Your task to perform on an android device: Toggle the flashlight Image 0: 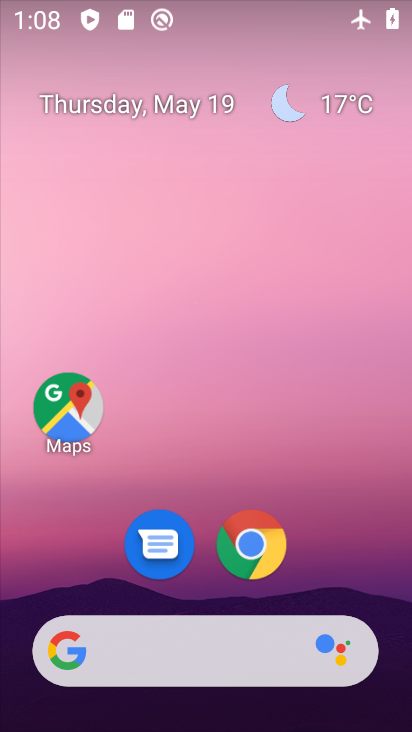
Step 0: drag from (200, 708) to (200, 175)
Your task to perform on an android device: Toggle the flashlight Image 1: 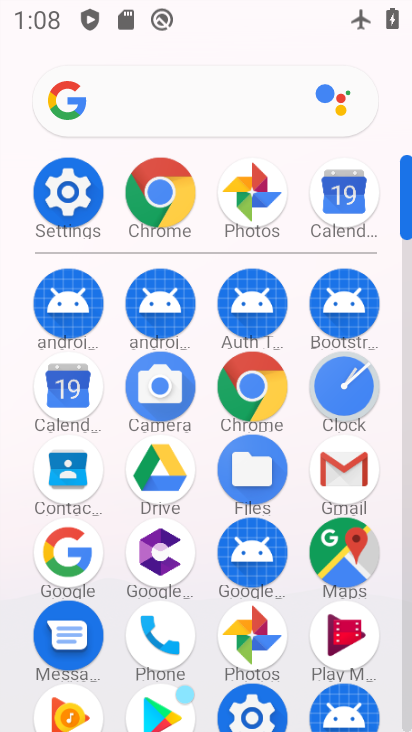
Step 1: click (63, 186)
Your task to perform on an android device: Toggle the flashlight Image 2: 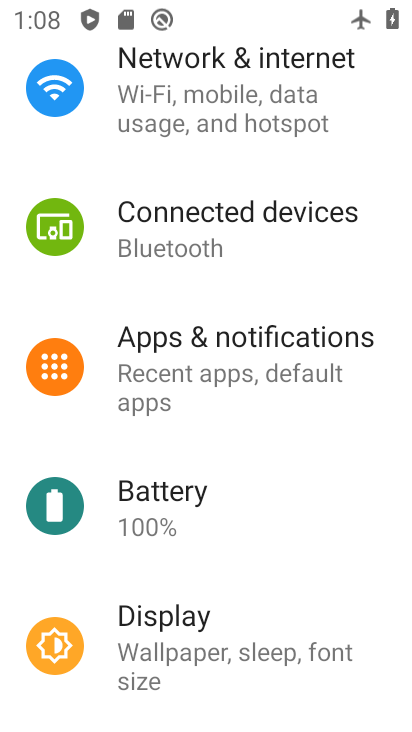
Step 2: drag from (176, 144) to (186, 573)
Your task to perform on an android device: Toggle the flashlight Image 3: 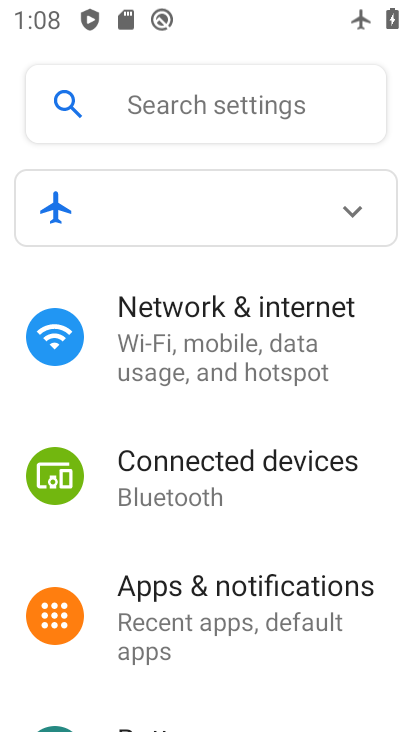
Step 3: click (217, 338)
Your task to perform on an android device: Toggle the flashlight Image 4: 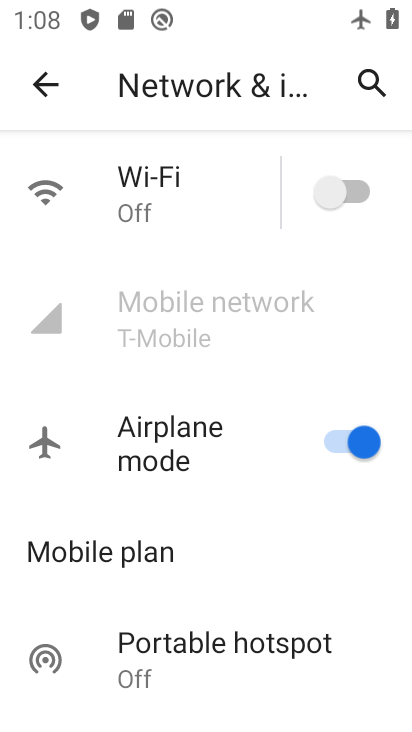
Step 4: click (46, 80)
Your task to perform on an android device: Toggle the flashlight Image 5: 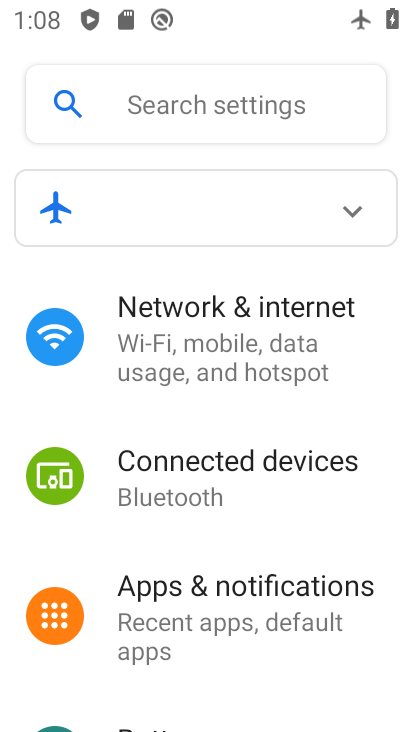
Step 5: task complete